Your task to perform on an android device: Turn off the flashlight Image 0: 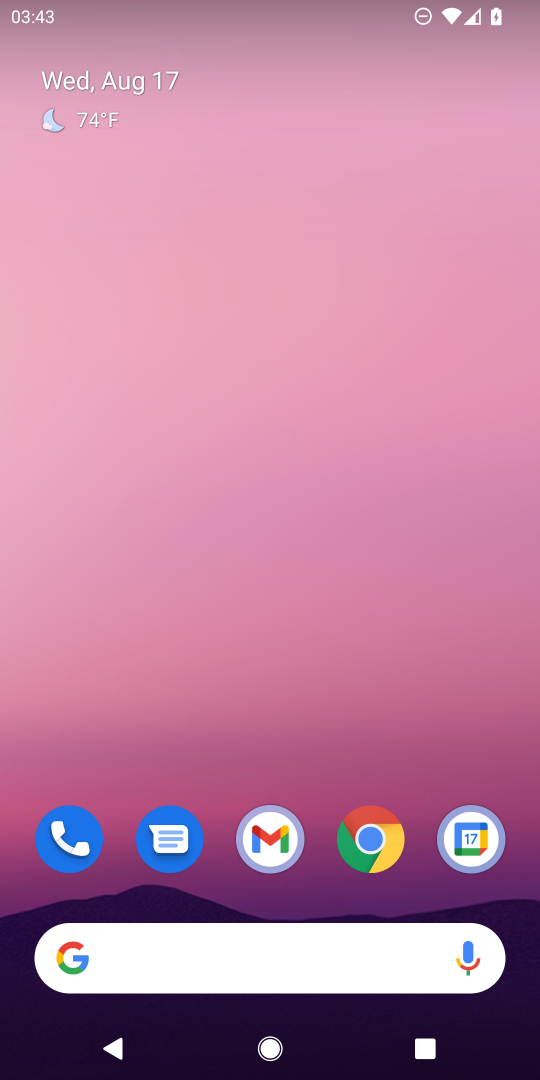
Step 0: drag from (311, 869) to (245, 138)
Your task to perform on an android device: Turn off the flashlight Image 1: 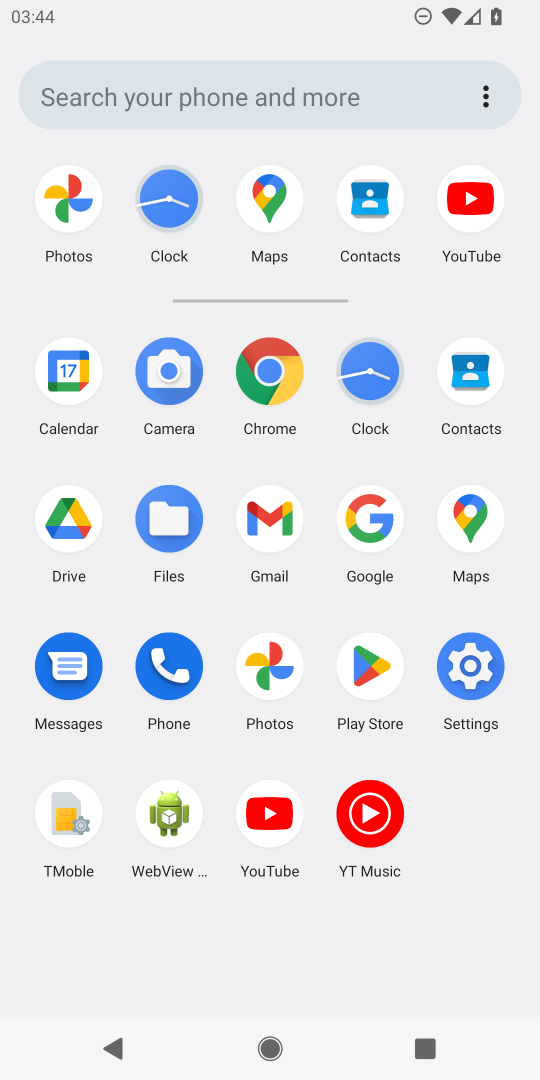
Step 1: click (468, 673)
Your task to perform on an android device: Turn off the flashlight Image 2: 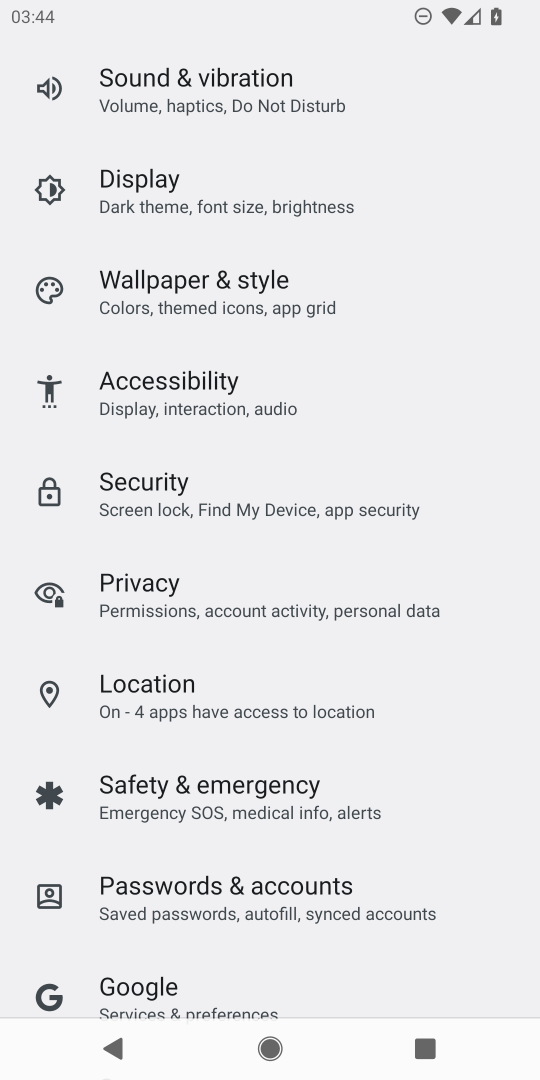
Step 2: task complete